Your task to perform on an android device: change notification settings in the gmail app Image 0: 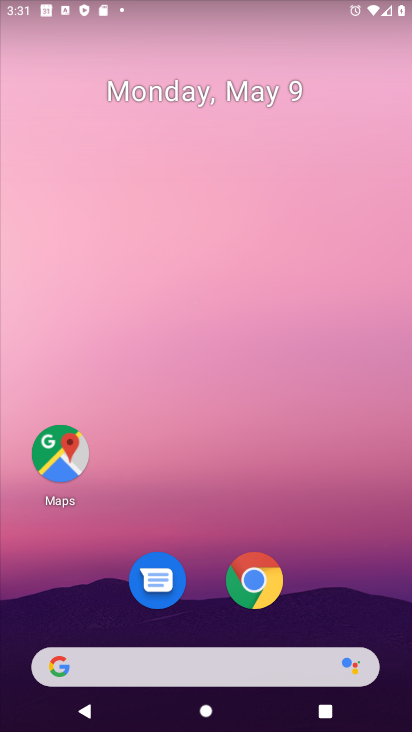
Step 0: drag from (325, 509) to (257, 91)
Your task to perform on an android device: change notification settings in the gmail app Image 1: 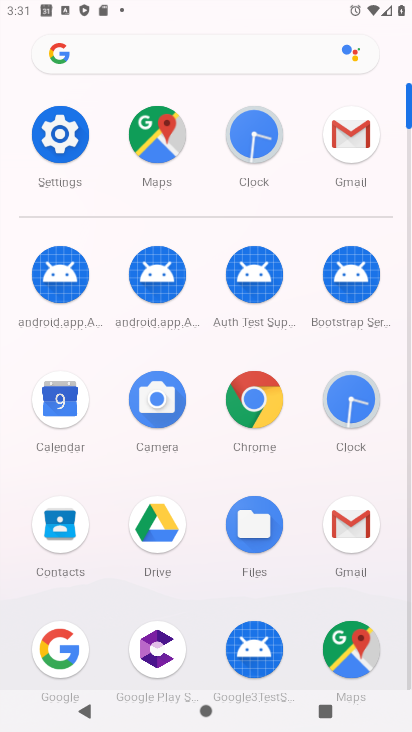
Step 1: click (342, 516)
Your task to perform on an android device: change notification settings in the gmail app Image 2: 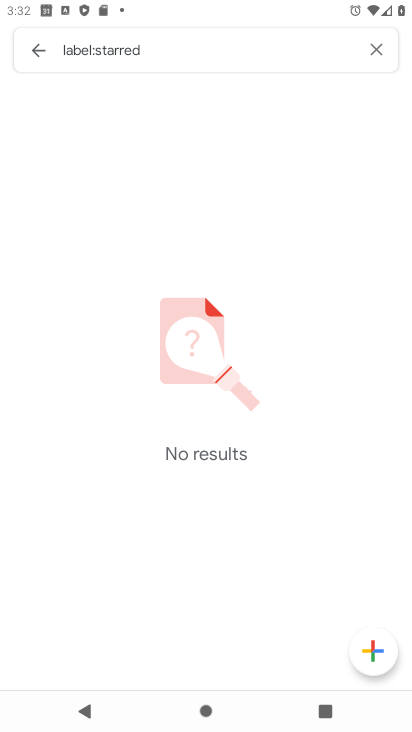
Step 2: click (375, 39)
Your task to perform on an android device: change notification settings in the gmail app Image 3: 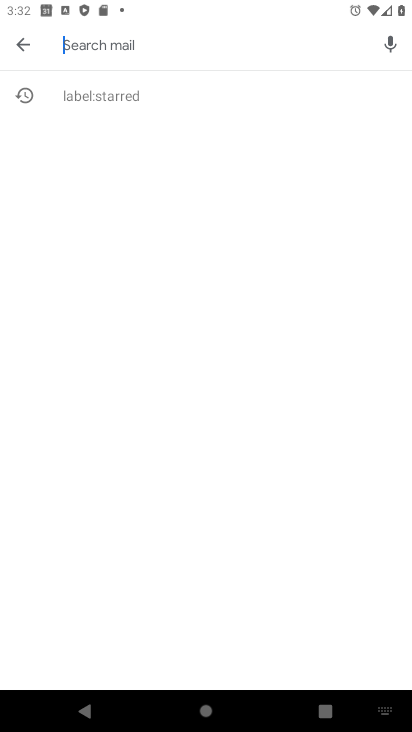
Step 3: click (19, 46)
Your task to perform on an android device: change notification settings in the gmail app Image 4: 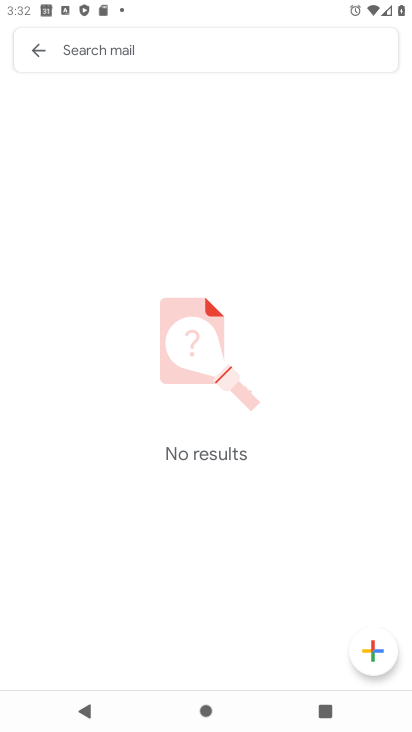
Step 4: click (40, 54)
Your task to perform on an android device: change notification settings in the gmail app Image 5: 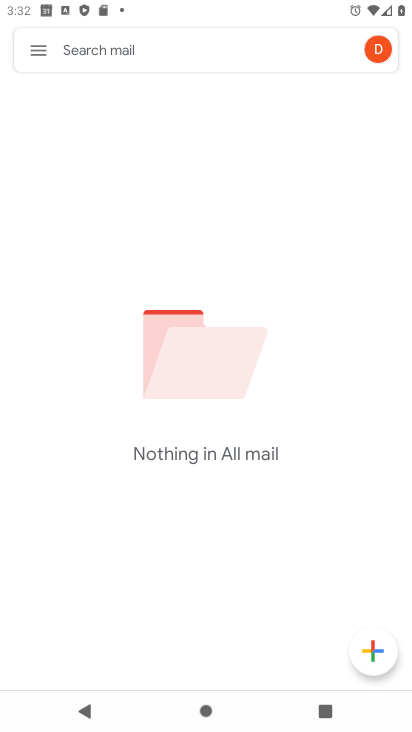
Step 5: click (37, 56)
Your task to perform on an android device: change notification settings in the gmail app Image 6: 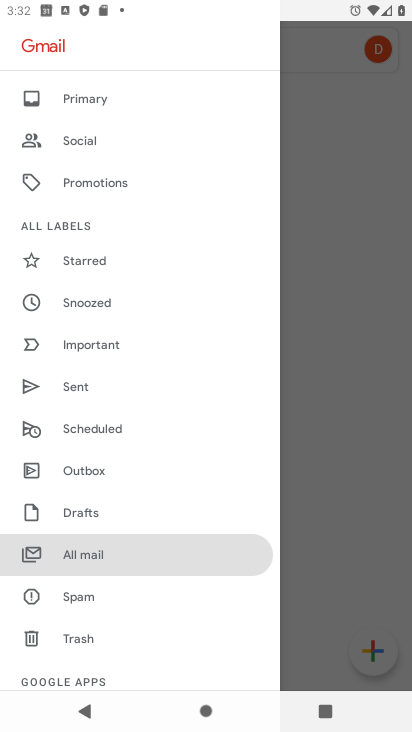
Step 6: drag from (142, 629) to (123, 245)
Your task to perform on an android device: change notification settings in the gmail app Image 7: 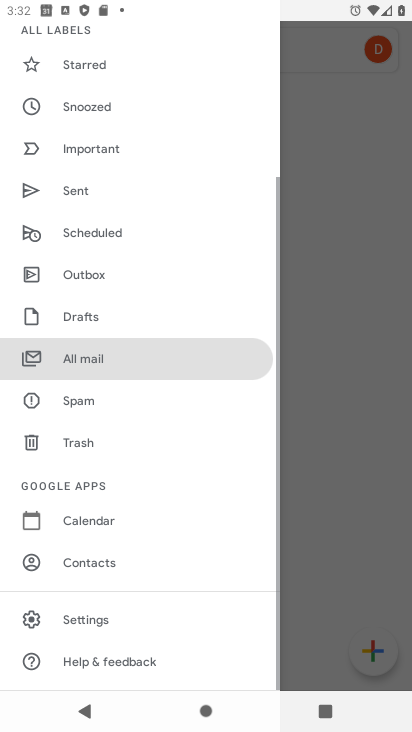
Step 7: click (145, 632)
Your task to perform on an android device: change notification settings in the gmail app Image 8: 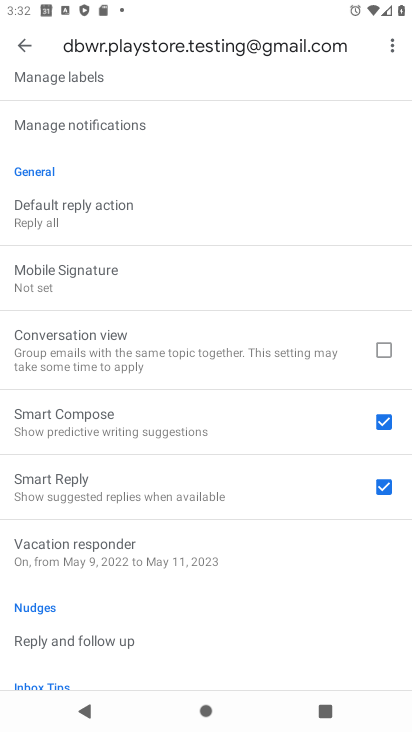
Step 8: drag from (168, 629) to (174, 162)
Your task to perform on an android device: change notification settings in the gmail app Image 9: 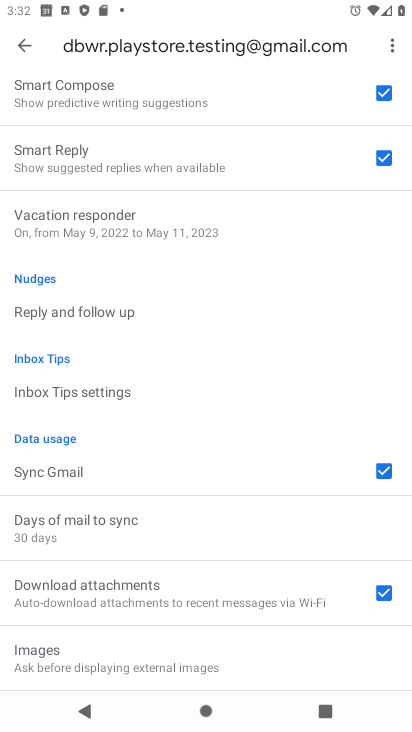
Step 9: drag from (169, 170) to (146, 590)
Your task to perform on an android device: change notification settings in the gmail app Image 10: 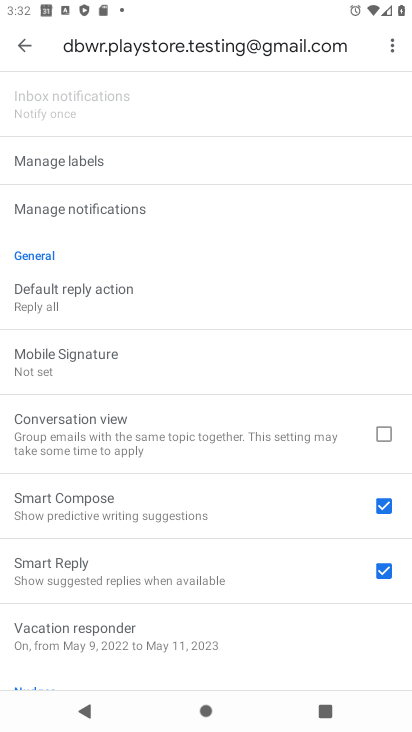
Step 10: click (83, 217)
Your task to perform on an android device: change notification settings in the gmail app Image 11: 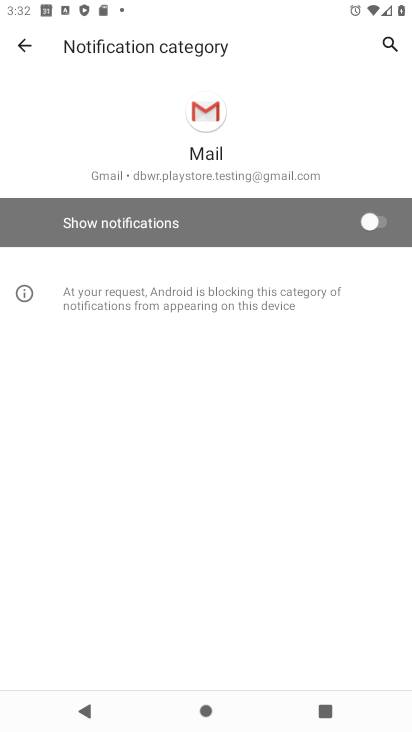
Step 11: click (372, 221)
Your task to perform on an android device: change notification settings in the gmail app Image 12: 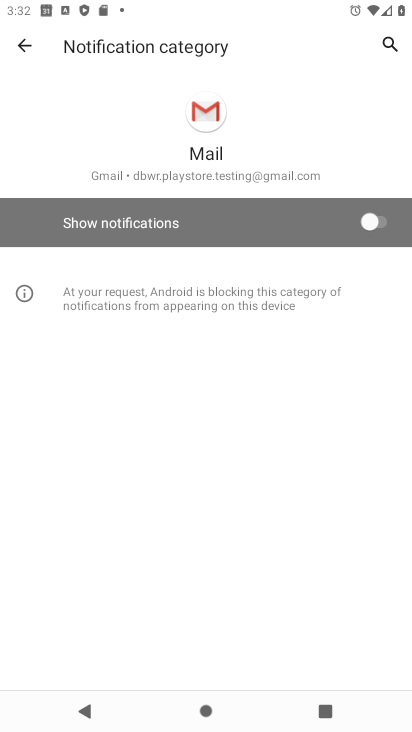
Step 12: click (378, 221)
Your task to perform on an android device: change notification settings in the gmail app Image 13: 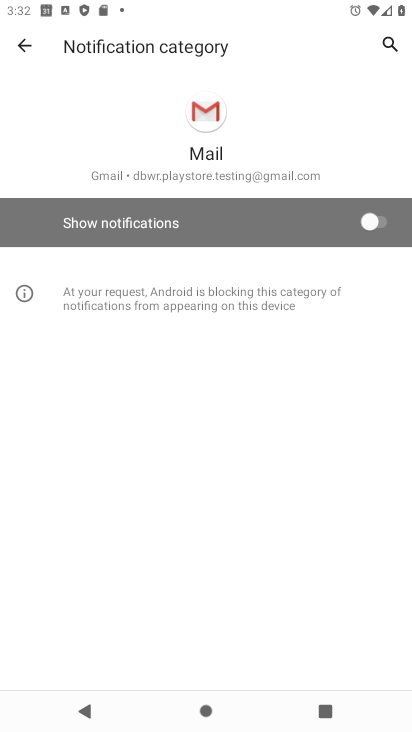
Step 13: task complete